Your task to perform on an android device: Go to Google maps Image 0: 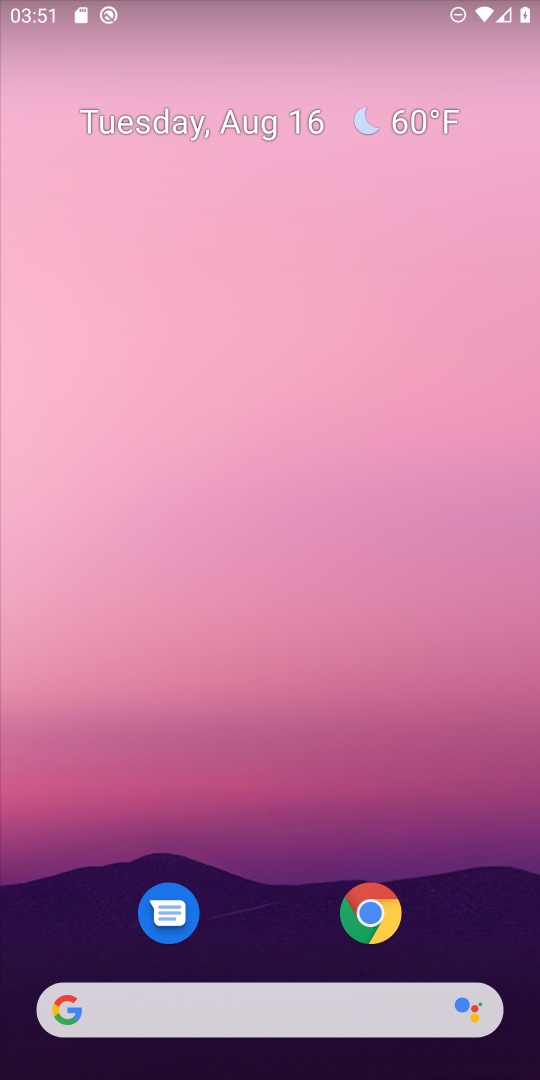
Step 0: drag from (489, 919) to (460, 162)
Your task to perform on an android device: Go to Google maps Image 1: 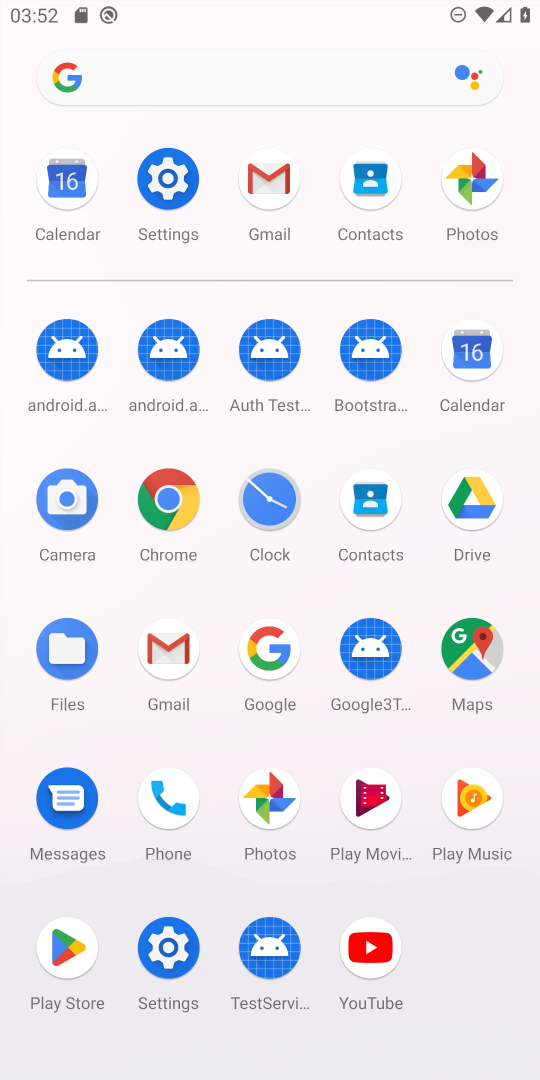
Step 1: click (472, 653)
Your task to perform on an android device: Go to Google maps Image 2: 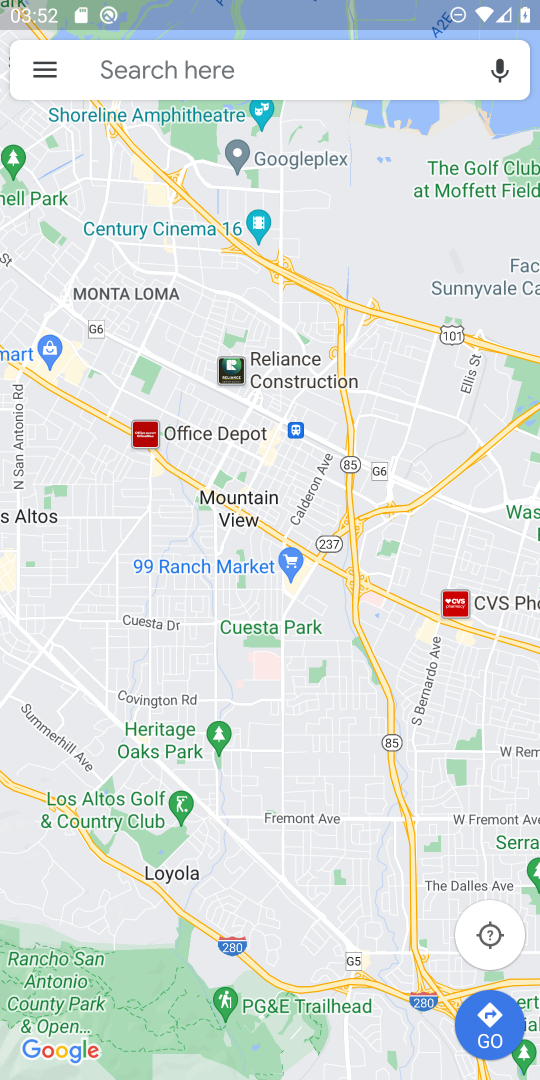
Step 2: task complete